Your task to perform on an android device: When is my next meeting? Image 0: 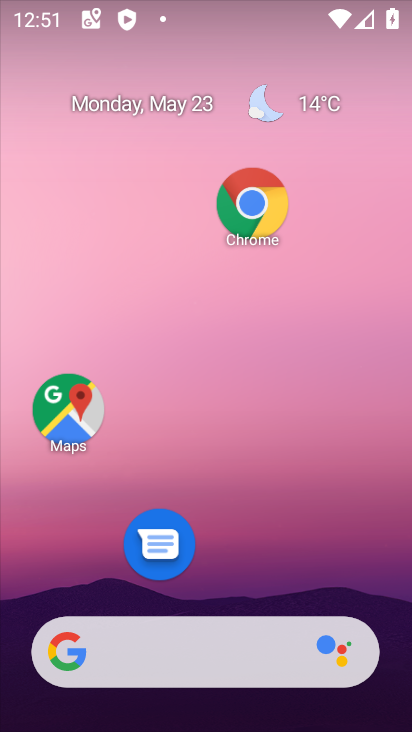
Step 0: drag from (257, 505) to (218, 74)
Your task to perform on an android device: When is my next meeting? Image 1: 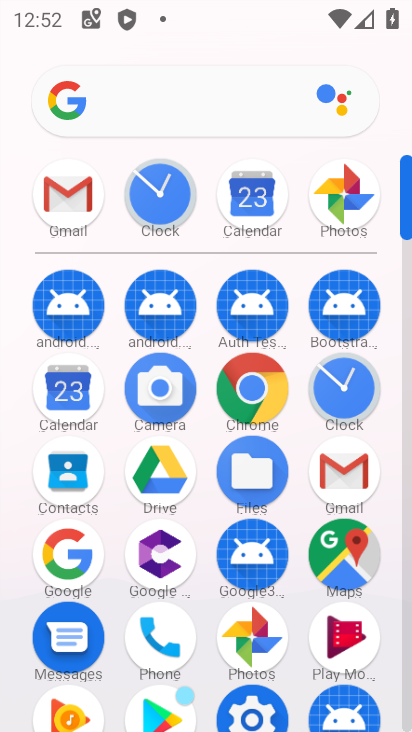
Step 1: click (81, 403)
Your task to perform on an android device: When is my next meeting? Image 2: 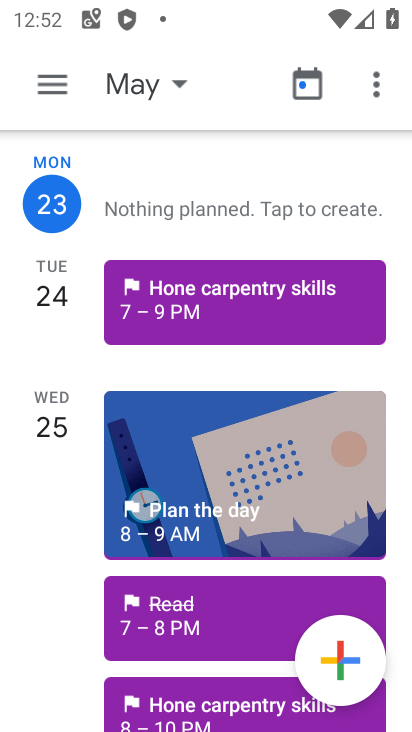
Step 2: task complete